Your task to perform on an android device: Go to location settings Image 0: 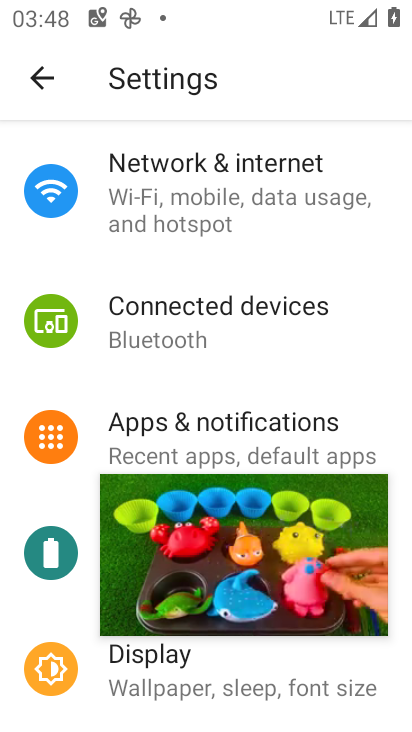
Step 0: click (194, 268)
Your task to perform on an android device: Go to location settings Image 1: 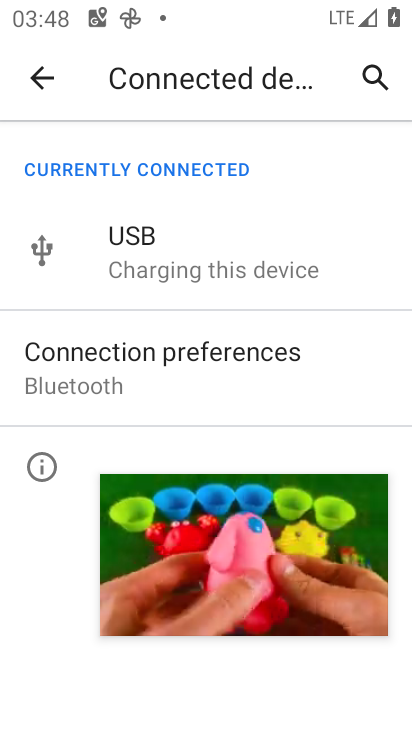
Step 1: click (47, 78)
Your task to perform on an android device: Go to location settings Image 2: 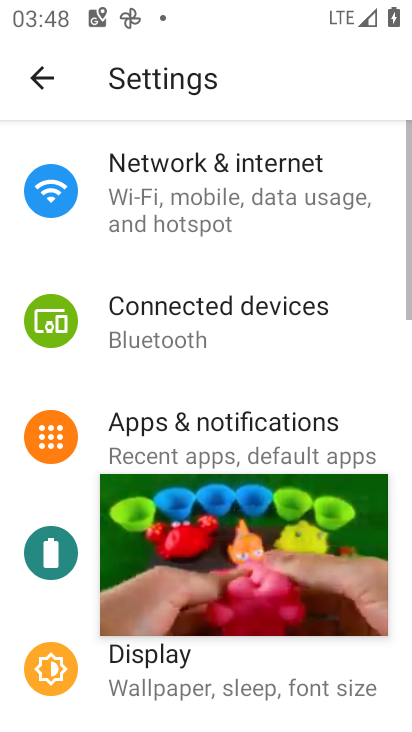
Step 2: drag from (188, 437) to (197, 192)
Your task to perform on an android device: Go to location settings Image 3: 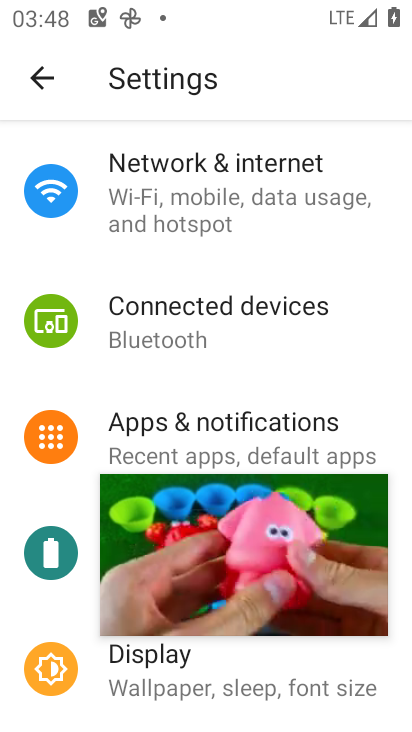
Step 3: drag from (17, 580) to (3, 281)
Your task to perform on an android device: Go to location settings Image 4: 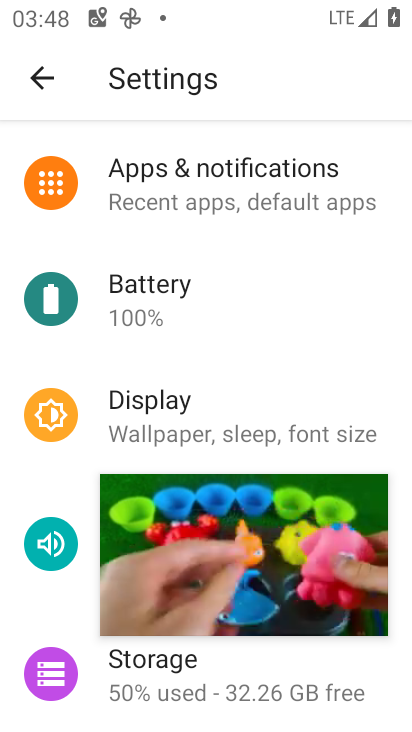
Step 4: drag from (14, 586) to (44, 255)
Your task to perform on an android device: Go to location settings Image 5: 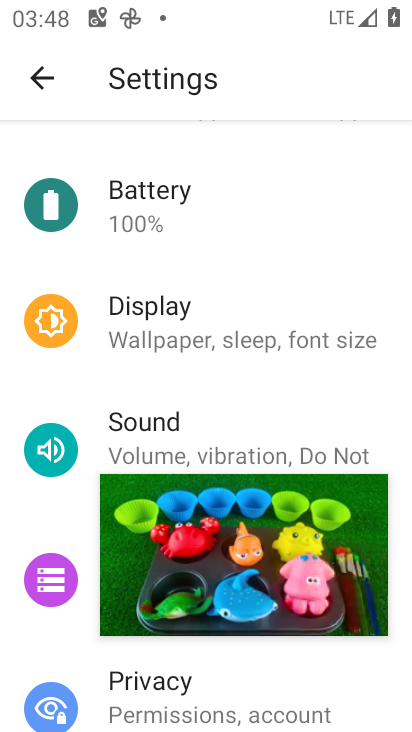
Step 5: drag from (3, 567) to (47, 143)
Your task to perform on an android device: Go to location settings Image 6: 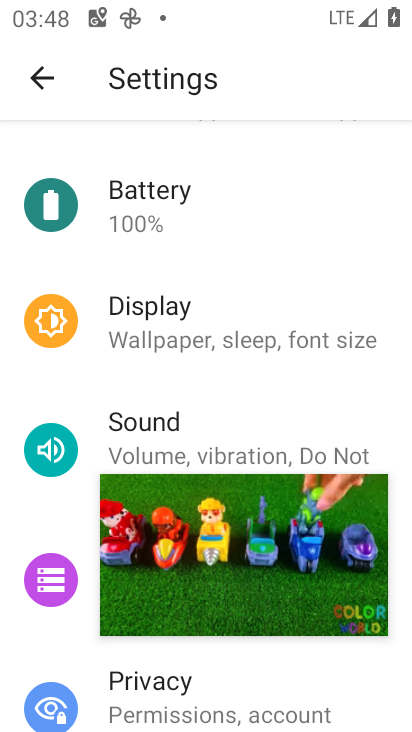
Step 6: drag from (396, 430) to (356, 156)
Your task to perform on an android device: Go to location settings Image 7: 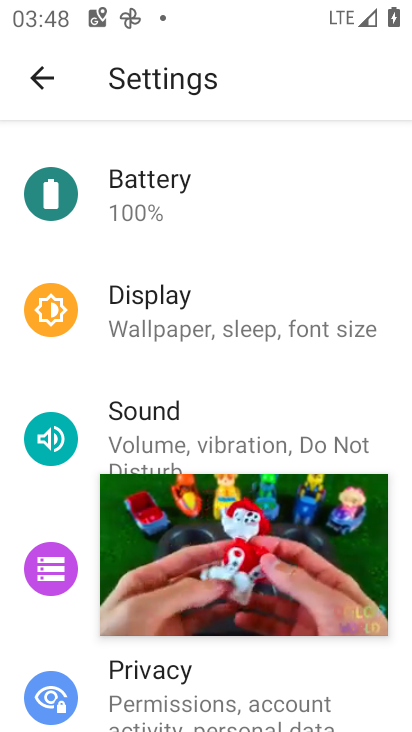
Step 7: drag from (365, 407) to (353, 217)
Your task to perform on an android device: Go to location settings Image 8: 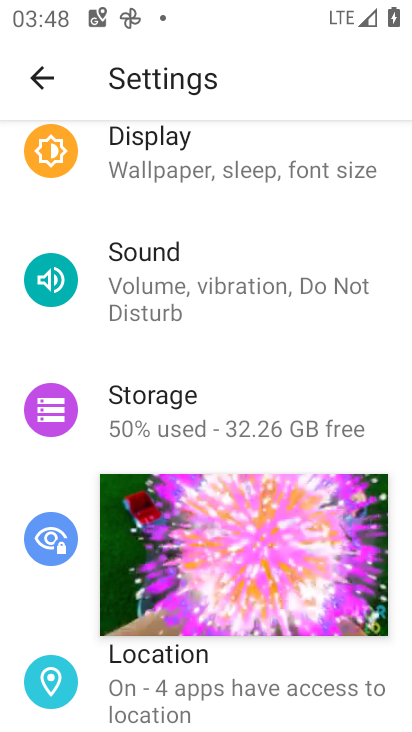
Step 8: click (132, 667)
Your task to perform on an android device: Go to location settings Image 9: 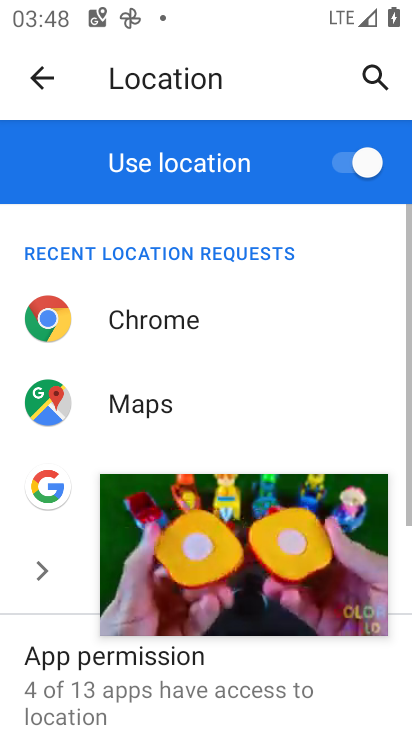
Step 9: task complete